Your task to perform on an android device: open app "Microsoft Excel" Image 0: 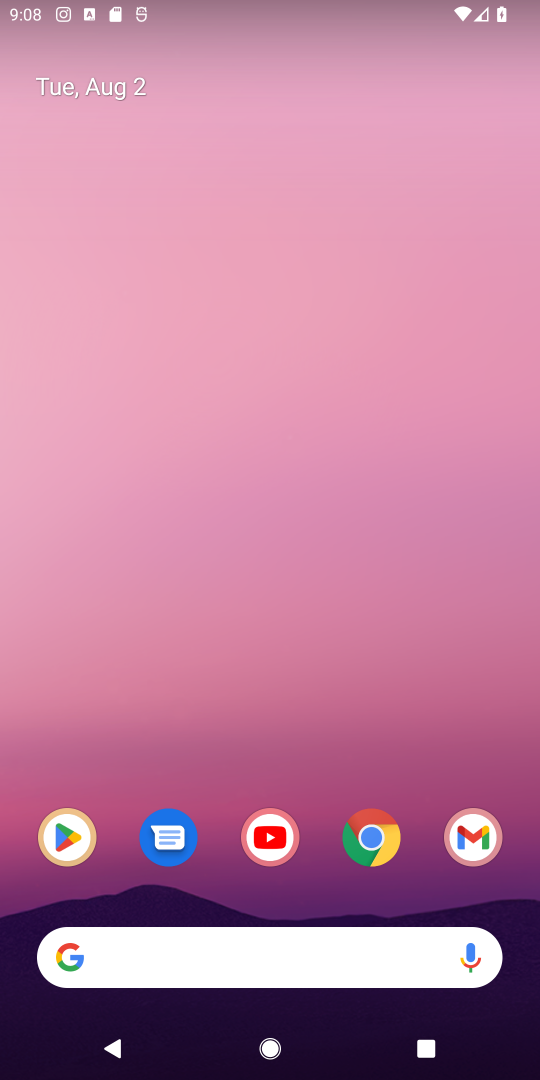
Step 0: click (72, 847)
Your task to perform on an android device: open app "Microsoft Excel" Image 1: 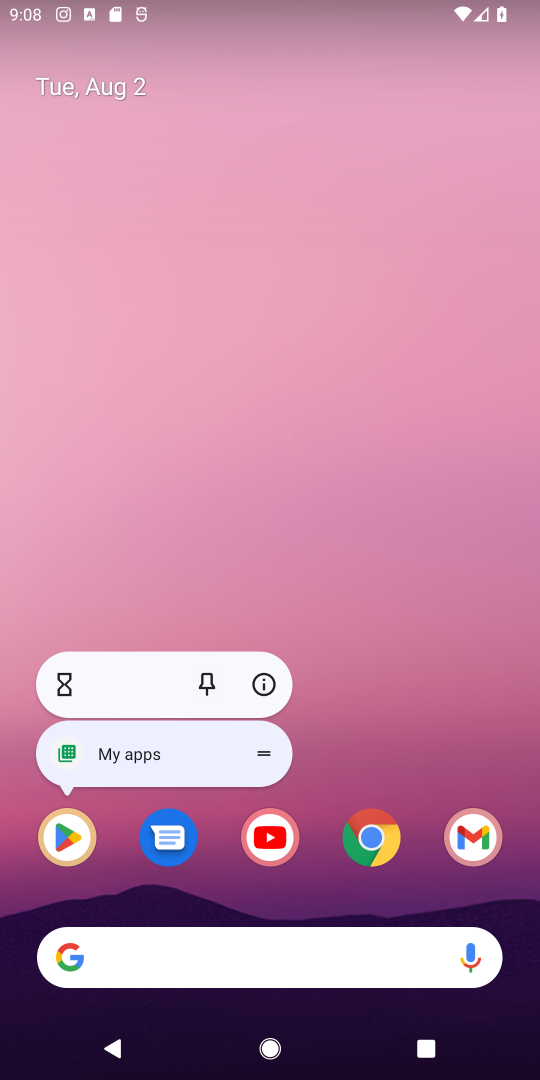
Step 1: click (72, 847)
Your task to perform on an android device: open app "Microsoft Excel" Image 2: 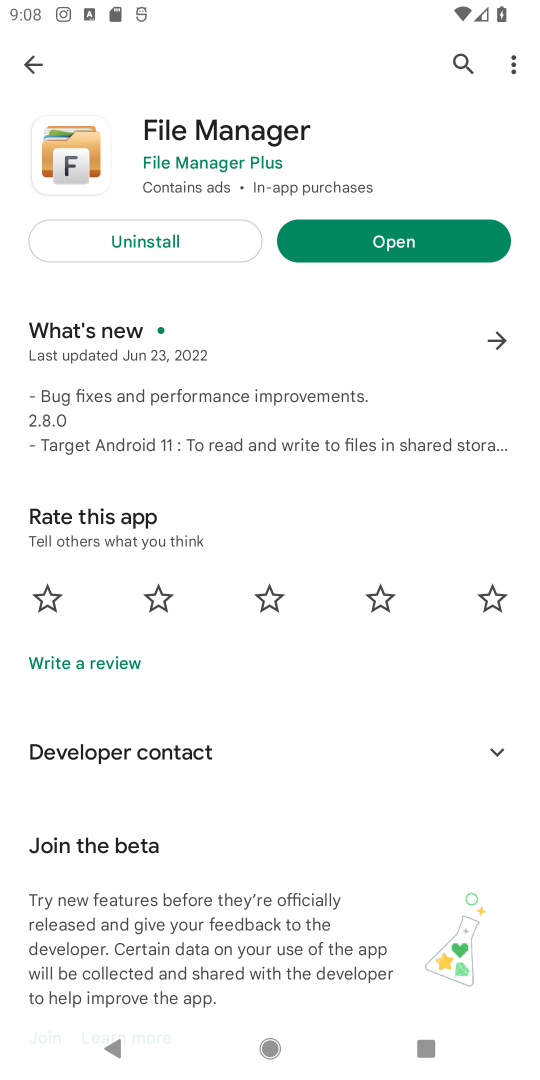
Step 2: click (454, 61)
Your task to perform on an android device: open app "Microsoft Excel" Image 3: 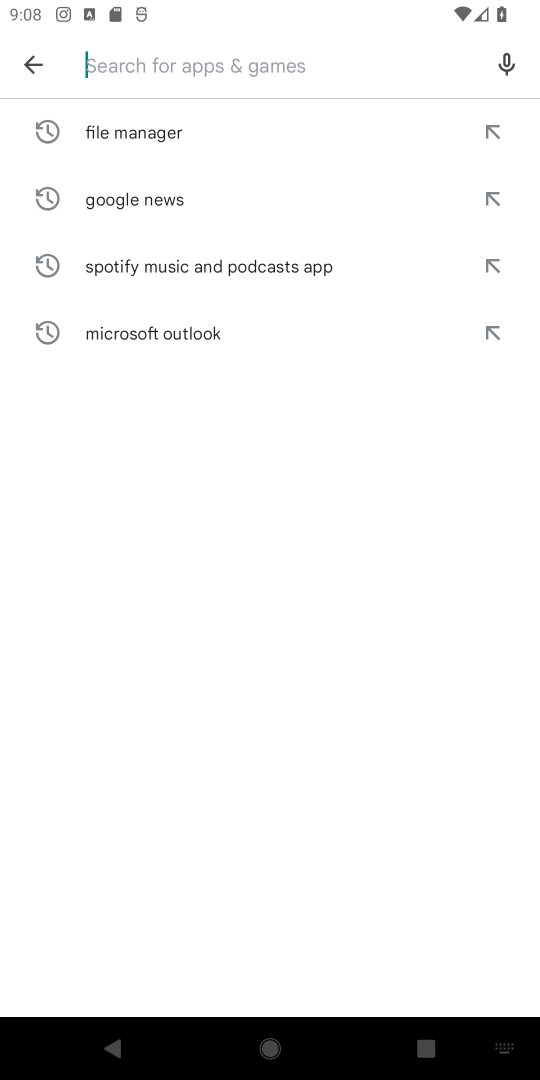
Step 3: type "Microsoft Excel"
Your task to perform on an android device: open app "Microsoft Excel" Image 4: 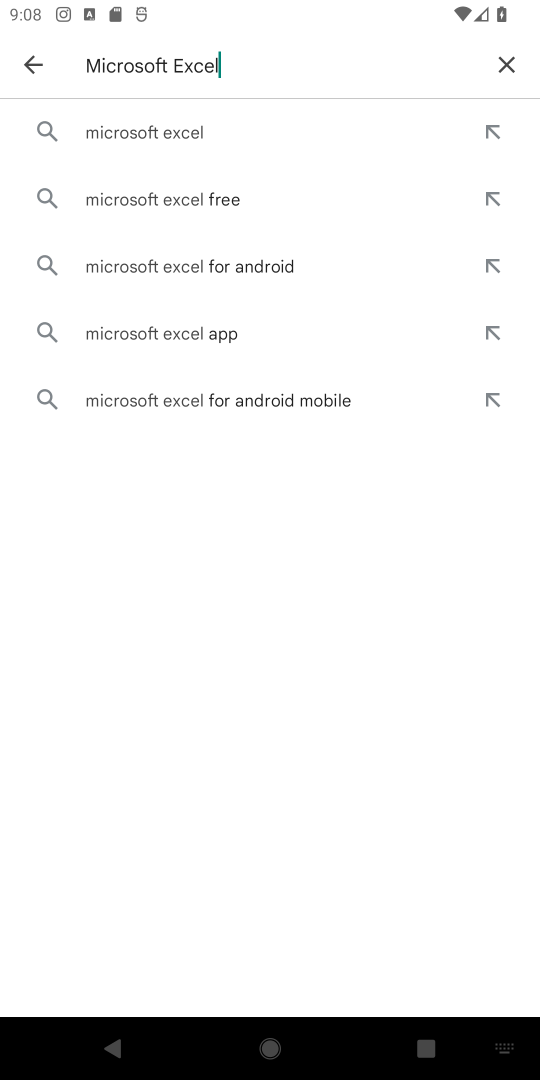
Step 4: click (182, 138)
Your task to perform on an android device: open app "Microsoft Excel" Image 5: 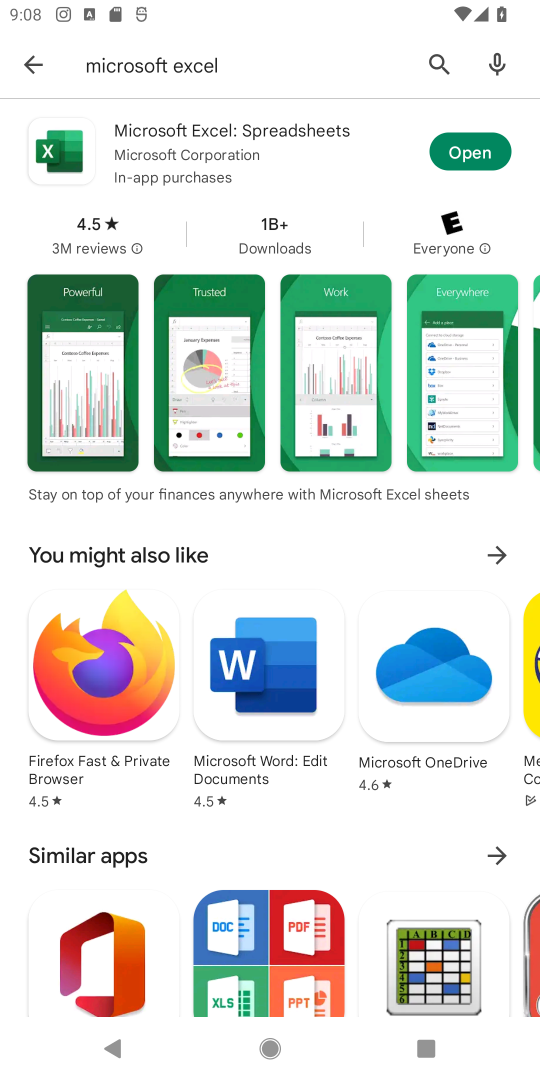
Step 5: click (448, 151)
Your task to perform on an android device: open app "Microsoft Excel" Image 6: 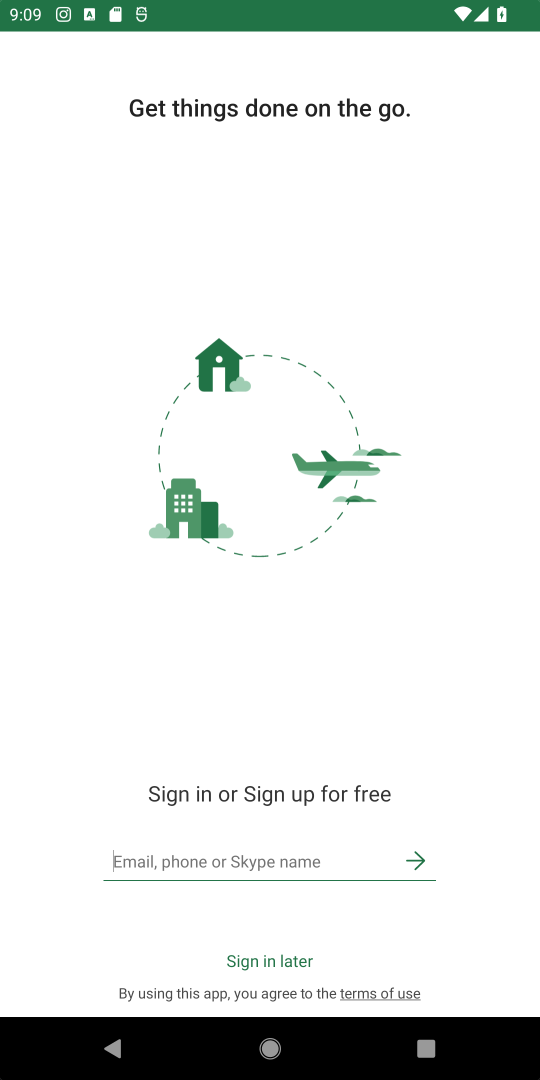
Step 6: task complete